Your task to perform on an android device: set default search engine in the chrome app Image 0: 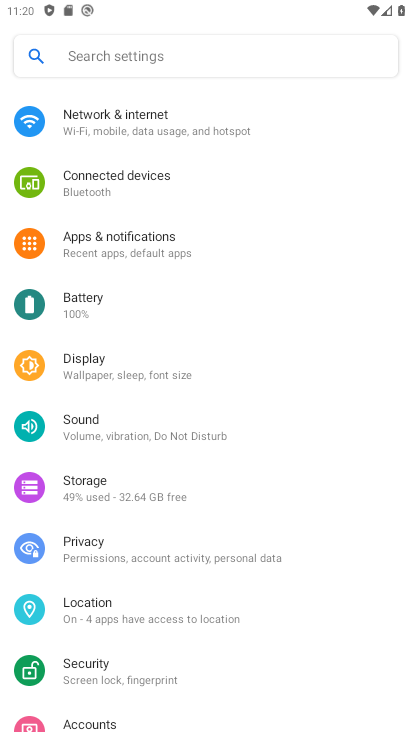
Step 0: drag from (180, 724) to (231, 137)
Your task to perform on an android device: set default search engine in the chrome app Image 1: 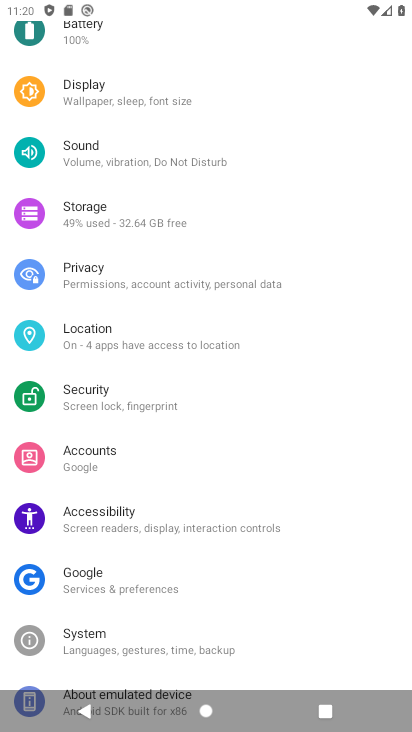
Step 1: press back button
Your task to perform on an android device: set default search engine in the chrome app Image 2: 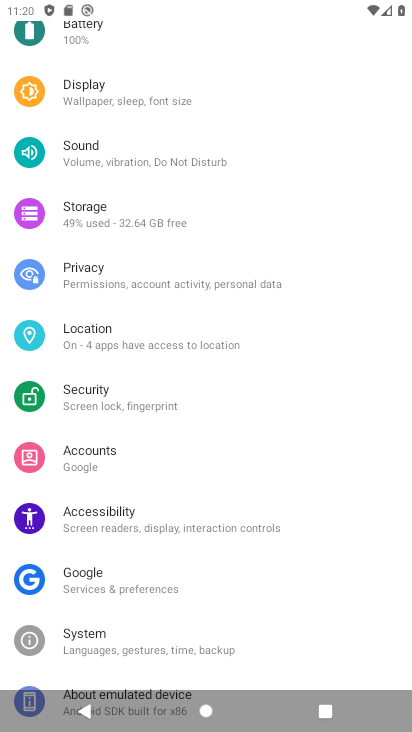
Step 2: press back button
Your task to perform on an android device: set default search engine in the chrome app Image 3: 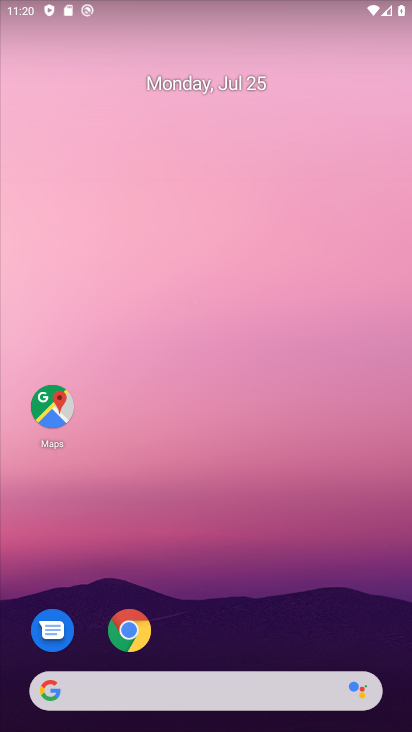
Step 3: drag from (201, 615) to (163, 155)
Your task to perform on an android device: set default search engine in the chrome app Image 4: 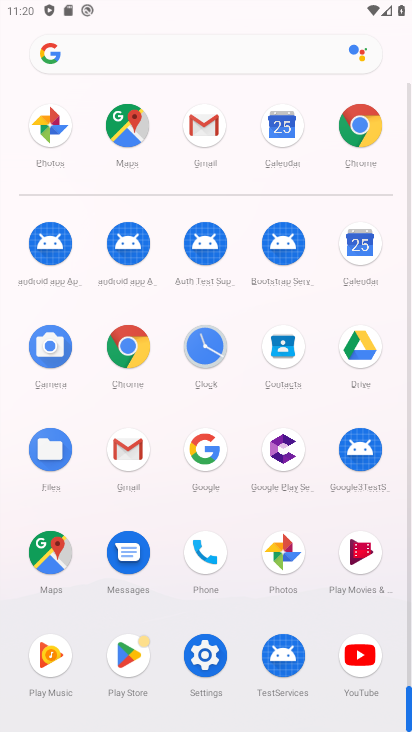
Step 4: click (127, 343)
Your task to perform on an android device: set default search engine in the chrome app Image 5: 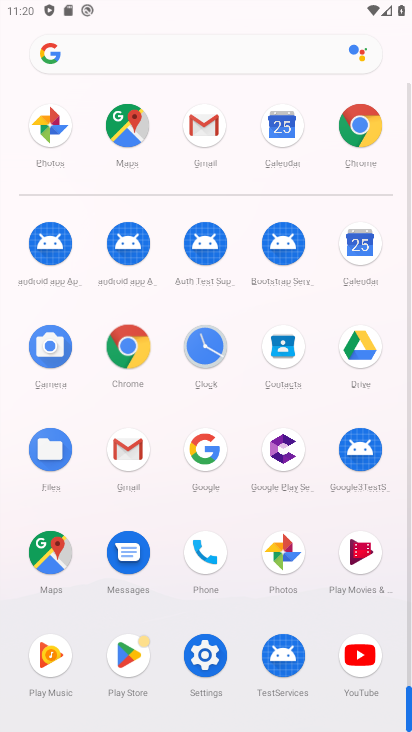
Step 5: click (127, 343)
Your task to perform on an android device: set default search engine in the chrome app Image 6: 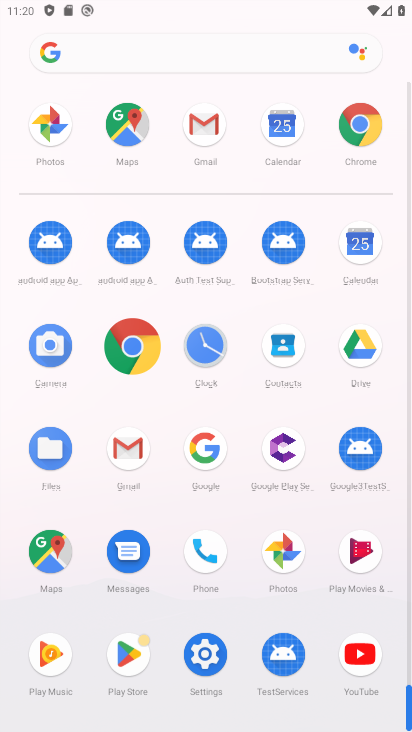
Step 6: click (129, 342)
Your task to perform on an android device: set default search engine in the chrome app Image 7: 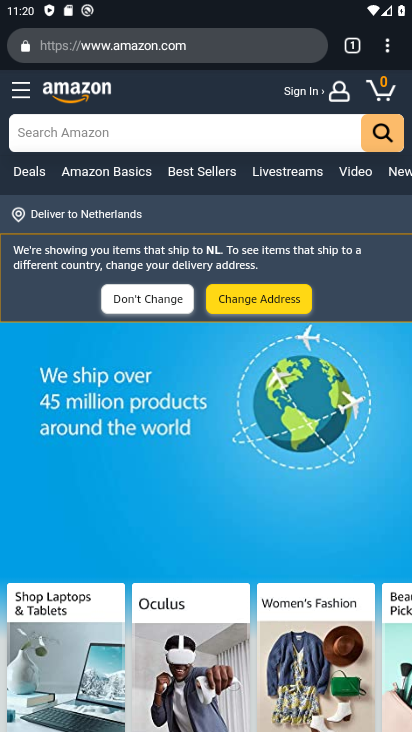
Step 7: click (386, 47)
Your task to perform on an android device: set default search engine in the chrome app Image 8: 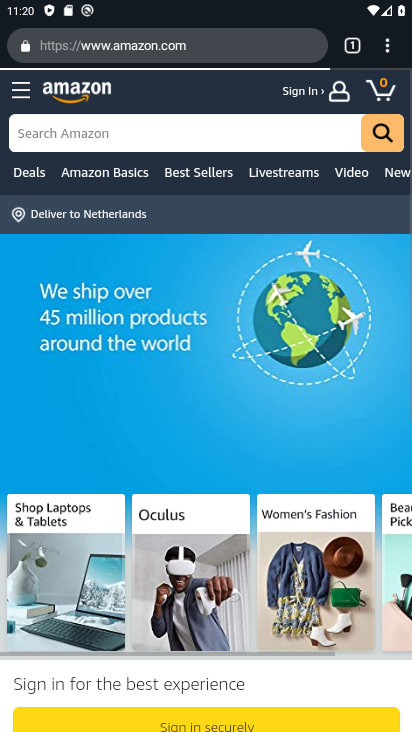
Step 8: drag from (388, 48) to (201, 547)
Your task to perform on an android device: set default search engine in the chrome app Image 9: 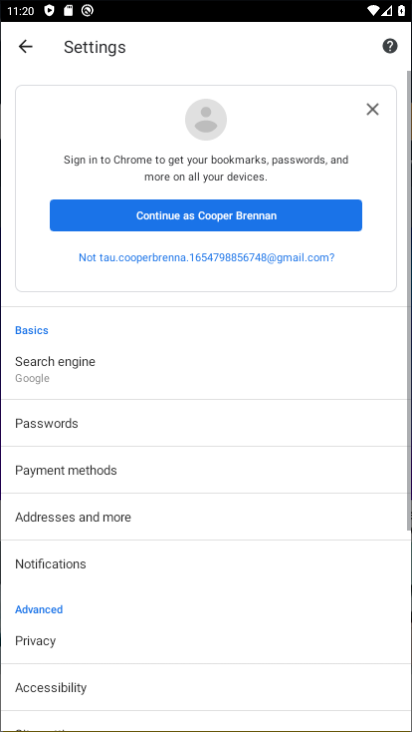
Step 9: click (208, 554)
Your task to perform on an android device: set default search engine in the chrome app Image 10: 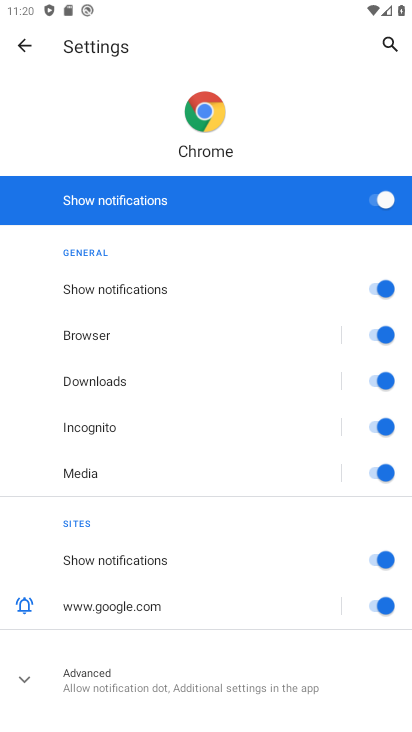
Step 10: click (20, 53)
Your task to perform on an android device: set default search engine in the chrome app Image 11: 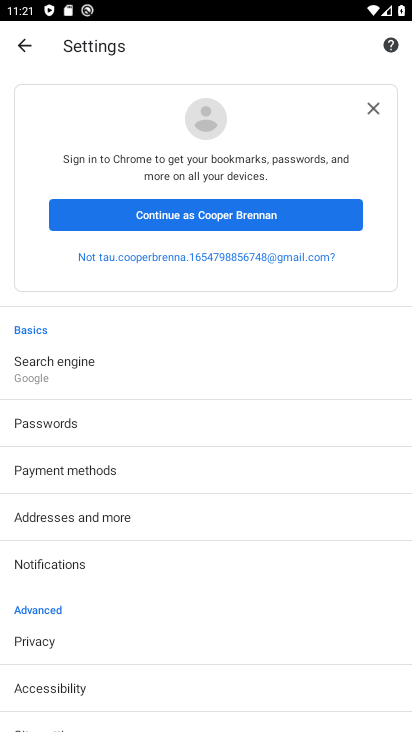
Step 11: click (65, 364)
Your task to perform on an android device: set default search engine in the chrome app Image 12: 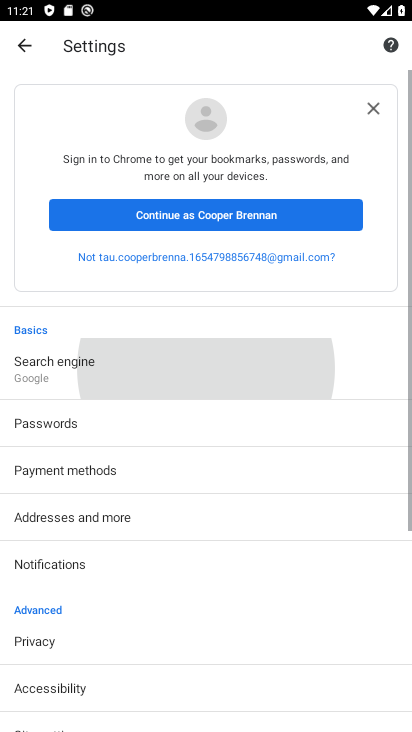
Step 12: click (65, 364)
Your task to perform on an android device: set default search engine in the chrome app Image 13: 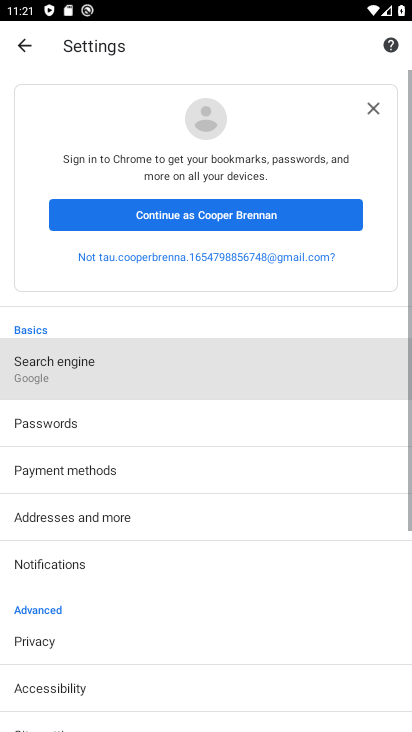
Step 13: click (66, 364)
Your task to perform on an android device: set default search engine in the chrome app Image 14: 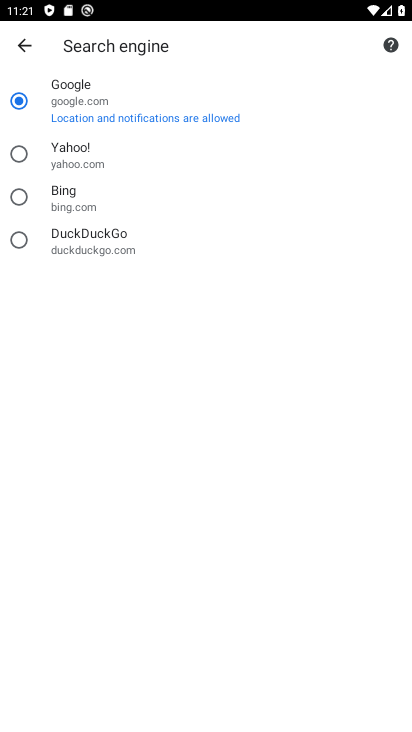
Step 14: click (18, 140)
Your task to perform on an android device: set default search engine in the chrome app Image 15: 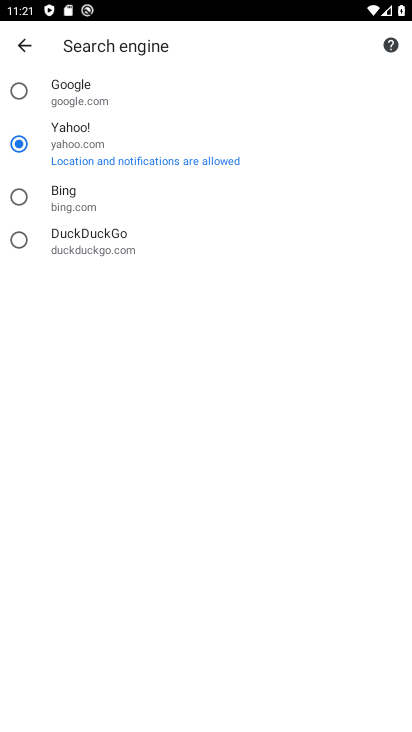
Step 15: task complete